Your task to perform on an android device: check out phone information Image 0: 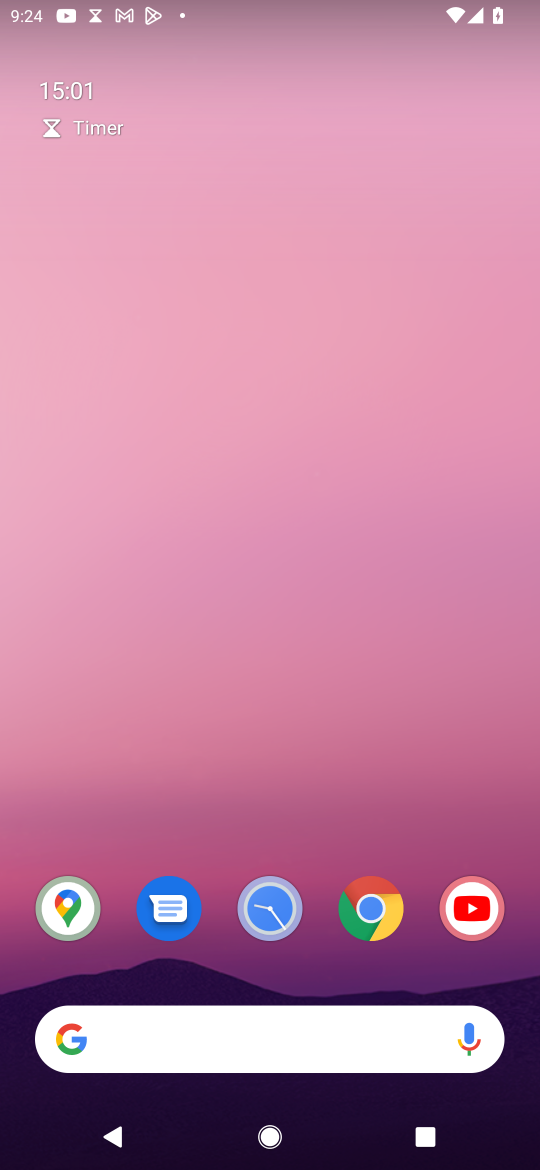
Step 0: drag from (208, 1003) to (321, 139)
Your task to perform on an android device: check out phone information Image 1: 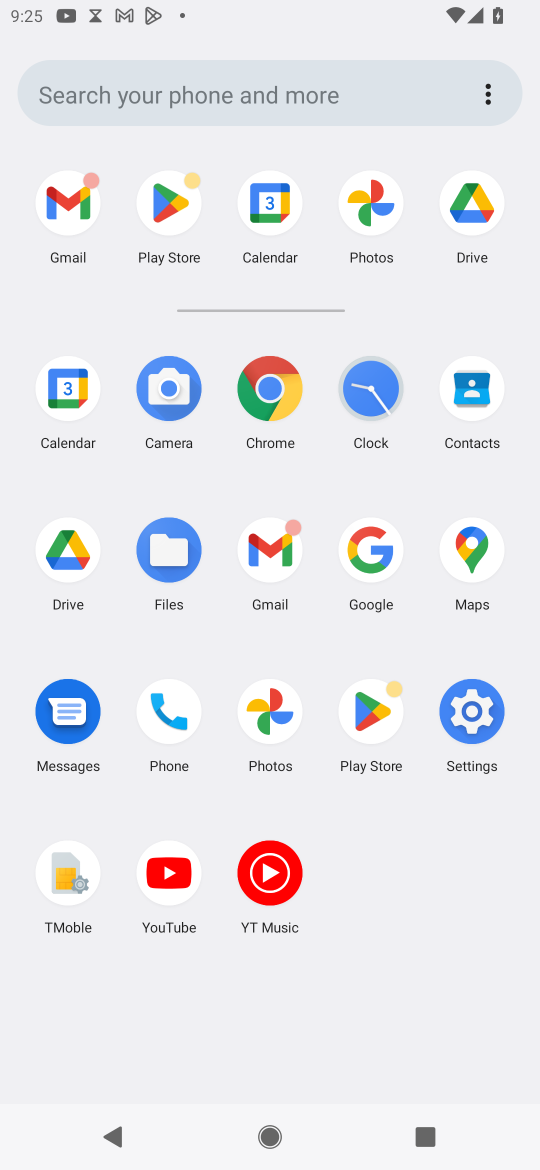
Step 1: click (471, 713)
Your task to perform on an android device: check out phone information Image 2: 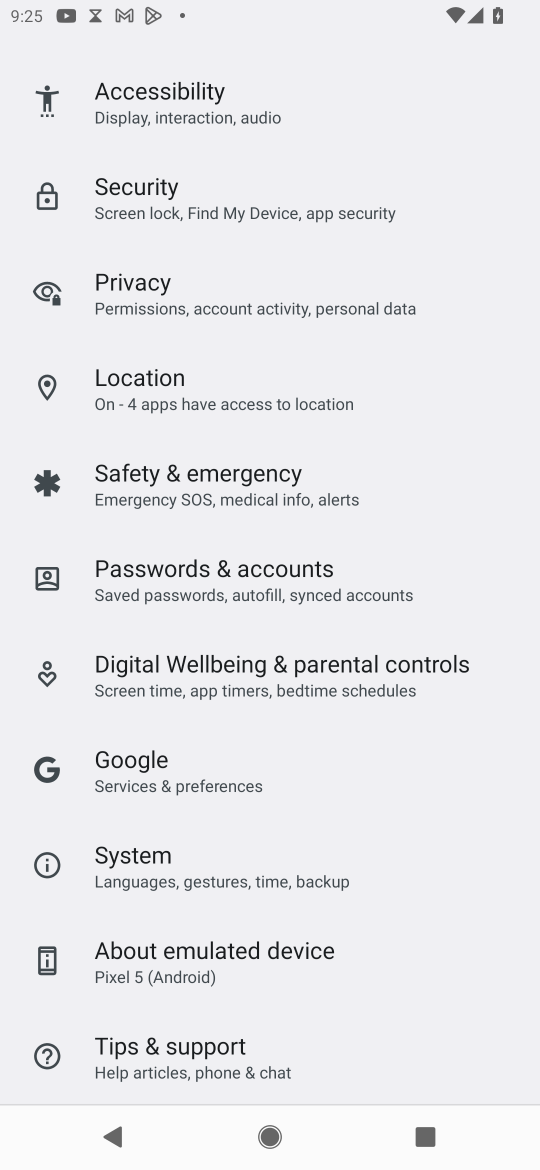
Step 2: drag from (233, 980) to (271, 3)
Your task to perform on an android device: check out phone information Image 3: 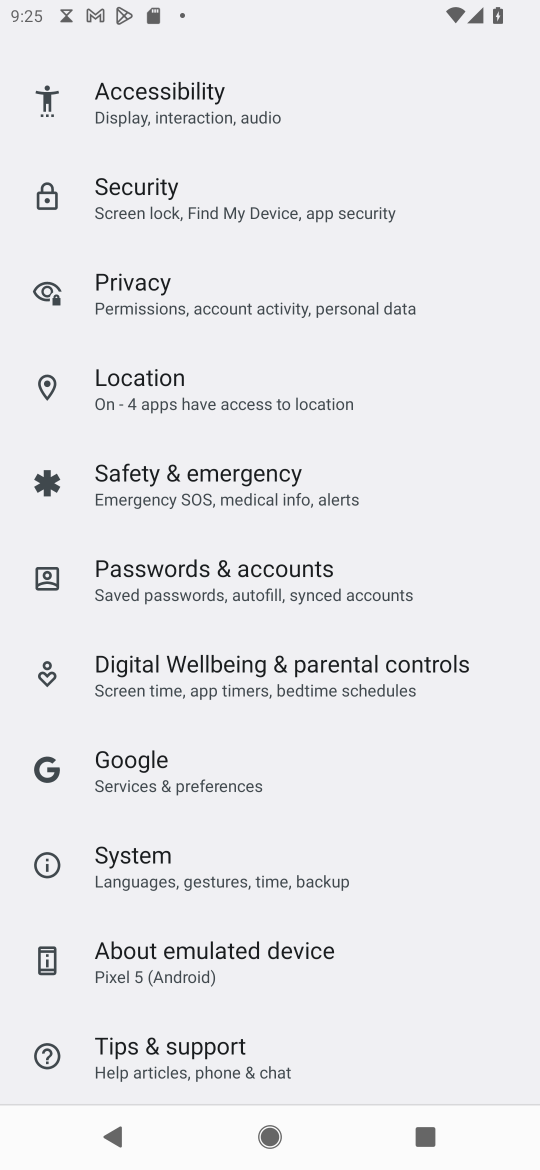
Step 3: click (130, 968)
Your task to perform on an android device: check out phone information Image 4: 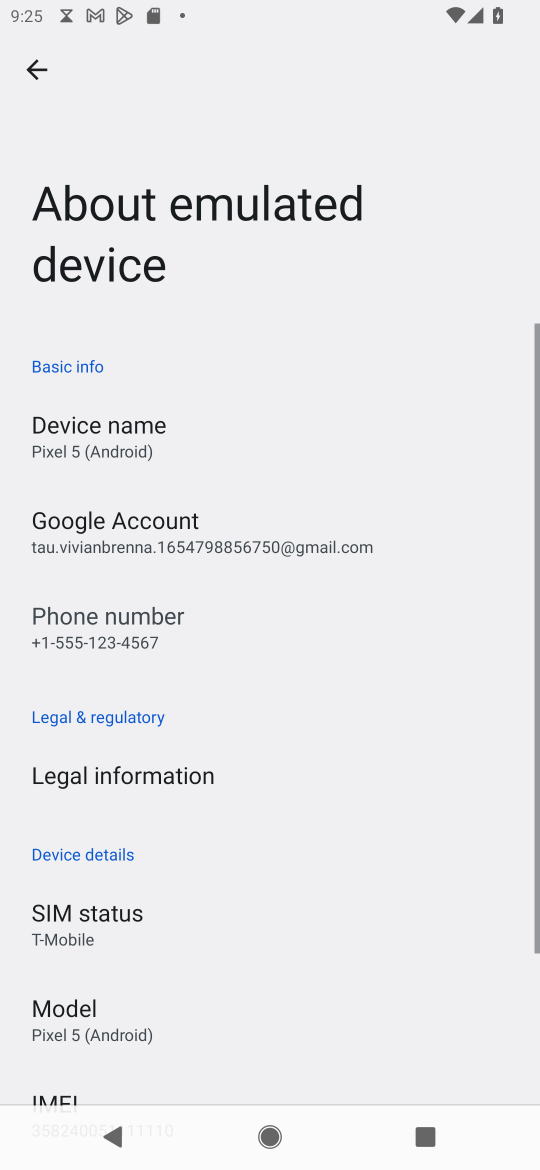
Step 4: task complete